Your task to perform on an android device: set default search engine in the chrome app Image 0: 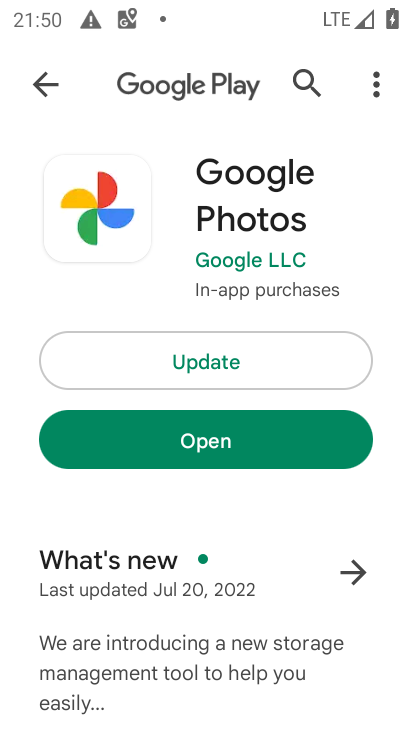
Step 0: press back button
Your task to perform on an android device: set default search engine in the chrome app Image 1: 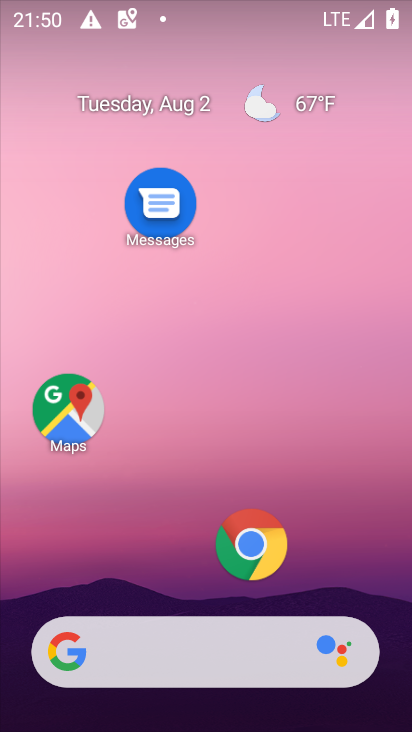
Step 1: click (255, 540)
Your task to perform on an android device: set default search engine in the chrome app Image 2: 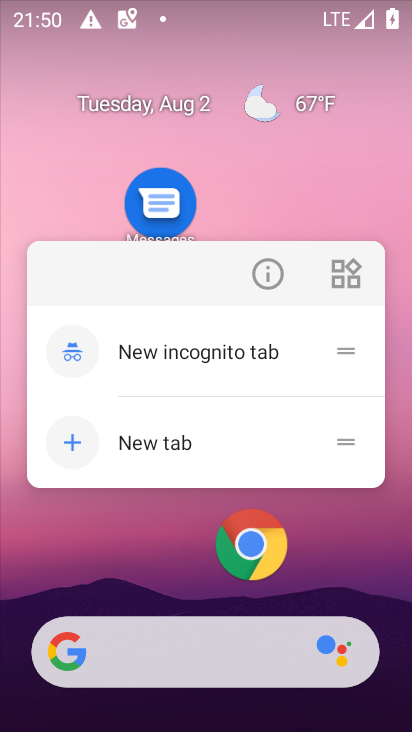
Step 2: click (255, 540)
Your task to perform on an android device: set default search engine in the chrome app Image 3: 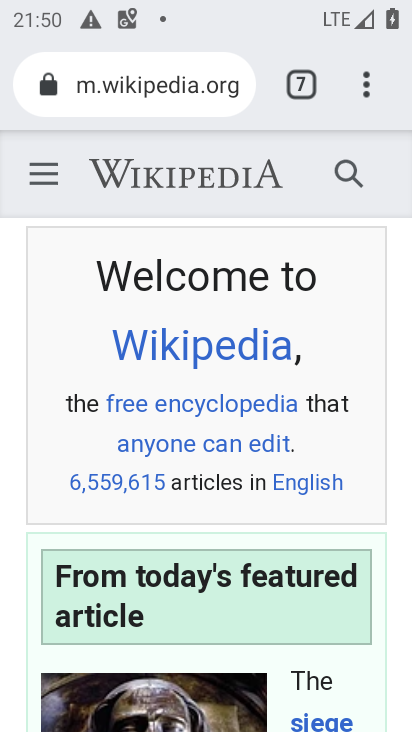
Step 3: drag from (365, 96) to (101, 613)
Your task to perform on an android device: set default search engine in the chrome app Image 4: 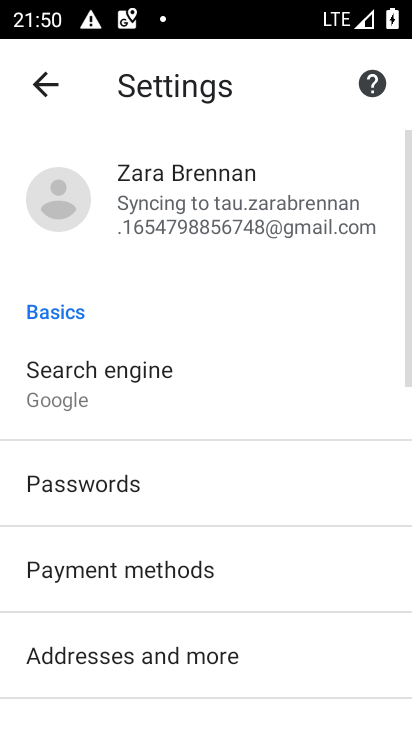
Step 4: click (110, 383)
Your task to perform on an android device: set default search engine in the chrome app Image 5: 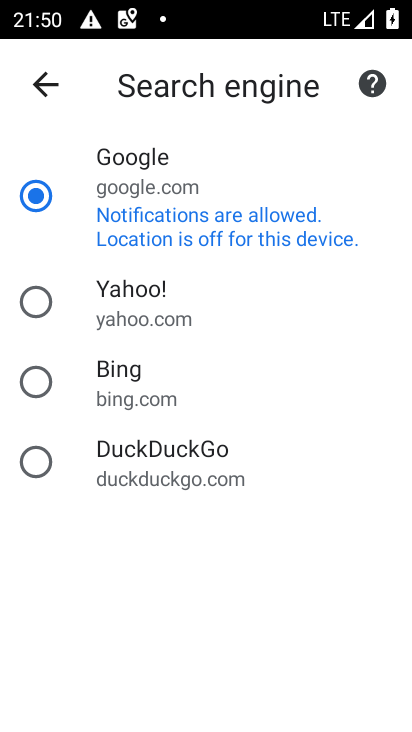
Step 5: task complete